Your task to perform on an android device: Open calendar and show me the fourth week of next month Image 0: 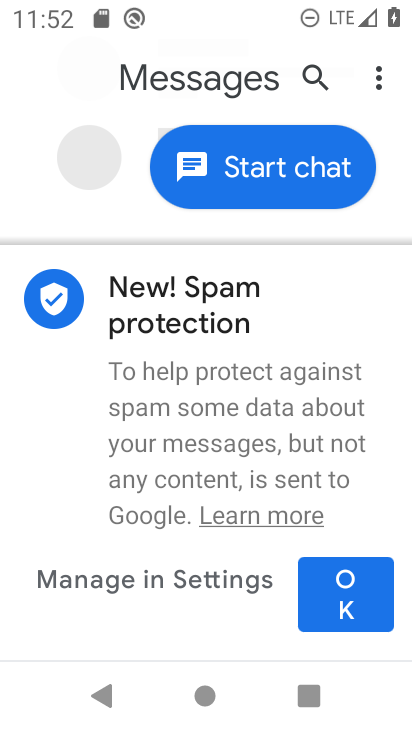
Step 0: press home button
Your task to perform on an android device: Open calendar and show me the fourth week of next month Image 1: 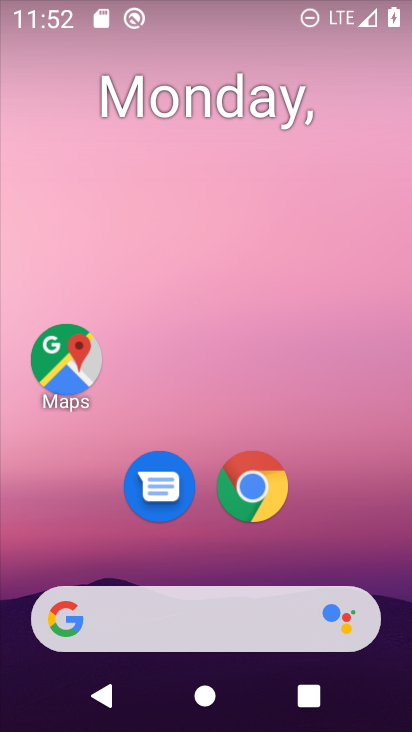
Step 1: drag from (26, 550) to (286, 140)
Your task to perform on an android device: Open calendar and show me the fourth week of next month Image 2: 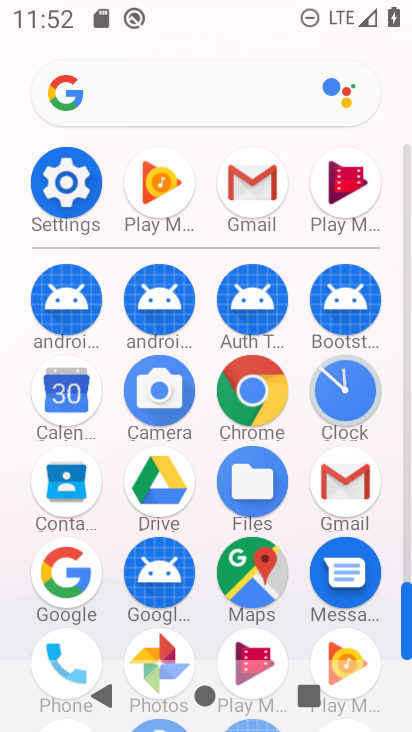
Step 2: click (75, 385)
Your task to perform on an android device: Open calendar and show me the fourth week of next month Image 3: 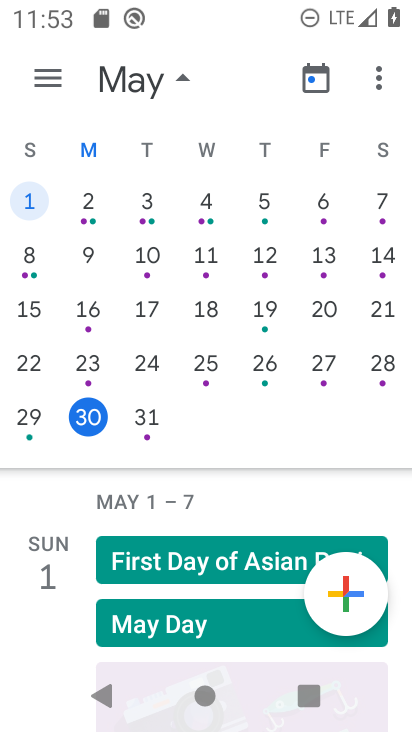
Step 3: drag from (409, 250) to (0, 224)
Your task to perform on an android device: Open calendar and show me the fourth week of next month Image 4: 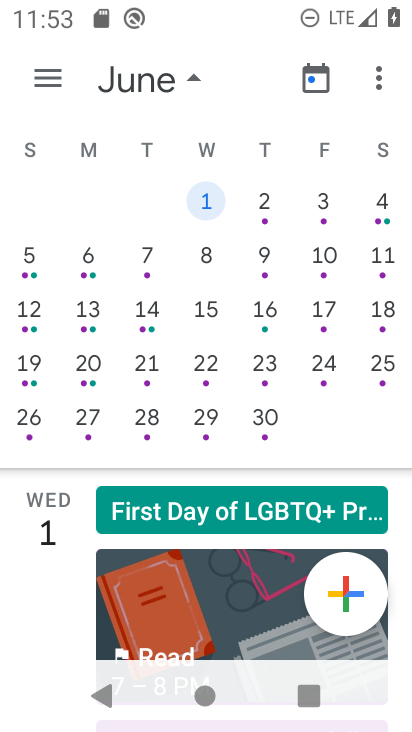
Step 4: click (192, 375)
Your task to perform on an android device: Open calendar and show me the fourth week of next month Image 5: 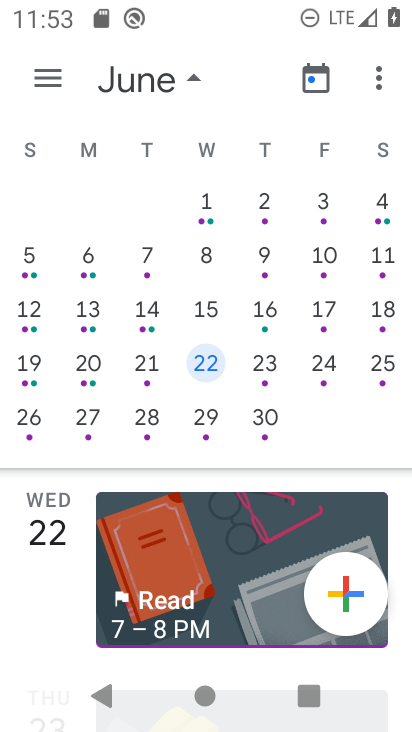
Step 5: click (85, 368)
Your task to perform on an android device: Open calendar and show me the fourth week of next month Image 6: 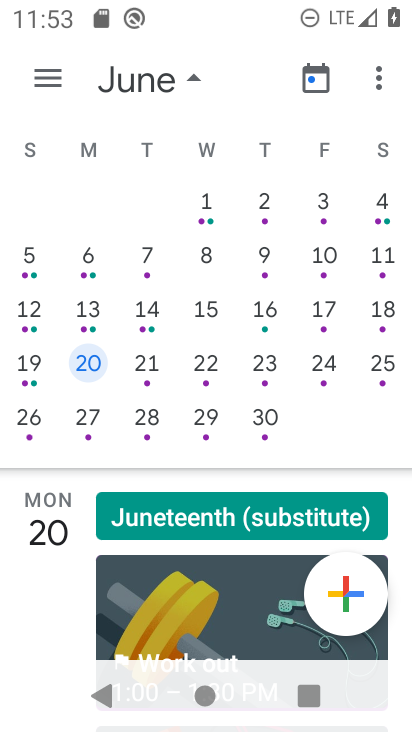
Step 6: click (97, 371)
Your task to perform on an android device: Open calendar and show me the fourth week of next month Image 7: 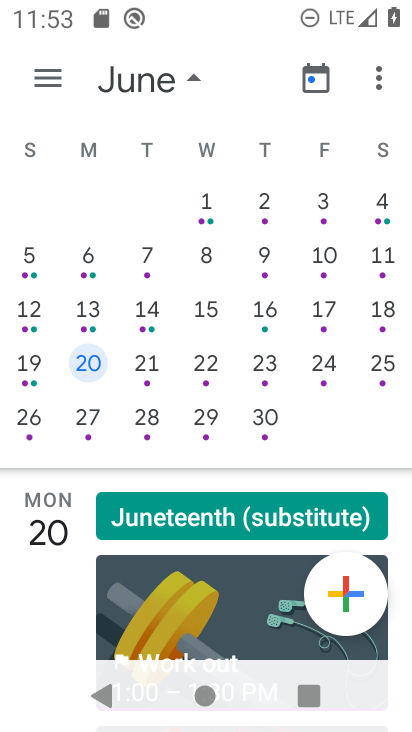
Step 7: click (146, 373)
Your task to perform on an android device: Open calendar and show me the fourth week of next month Image 8: 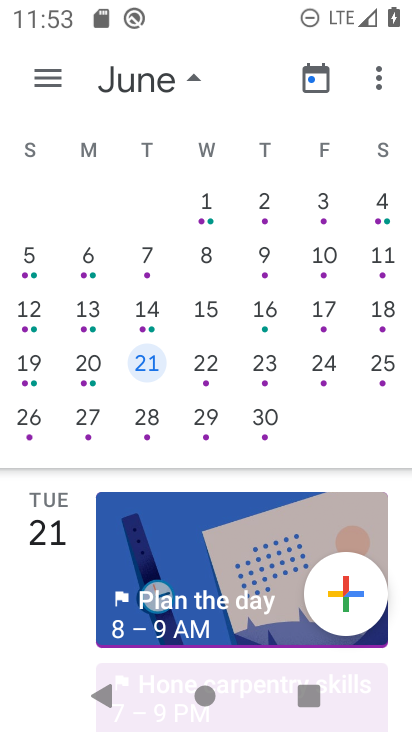
Step 8: click (210, 372)
Your task to perform on an android device: Open calendar and show me the fourth week of next month Image 9: 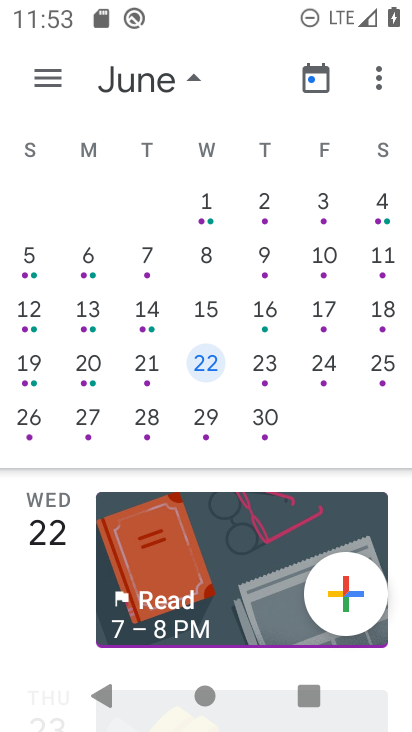
Step 9: click (260, 372)
Your task to perform on an android device: Open calendar and show me the fourth week of next month Image 10: 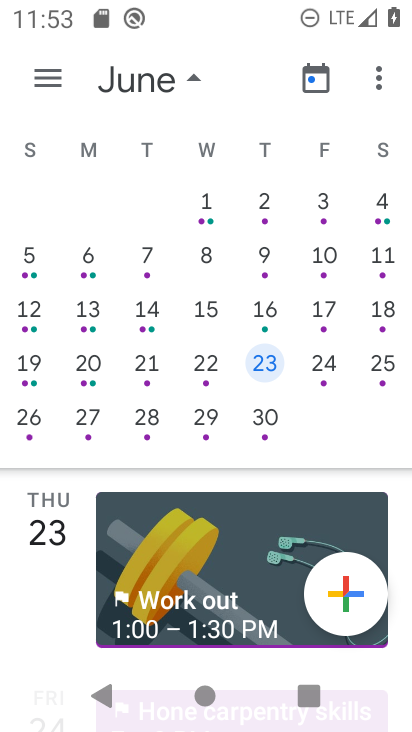
Step 10: click (323, 378)
Your task to perform on an android device: Open calendar and show me the fourth week of next month Image 11: 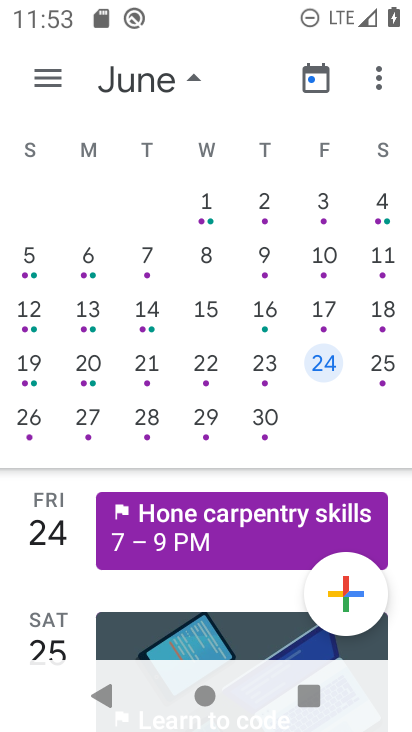
Step 11: task complete